Your task to perform on an android device: Go to calendar. Show me events next week Image 0: 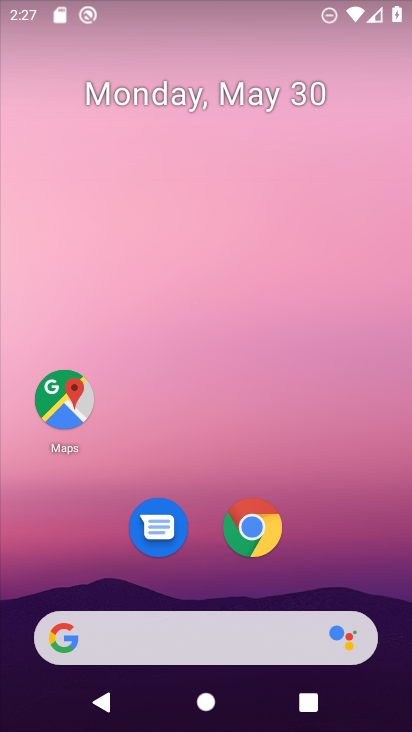
Step 0: drag from (236, 402) to (196, 139)
Your task to perform on an android device: Go to calendar. Show me events next week Image 1: 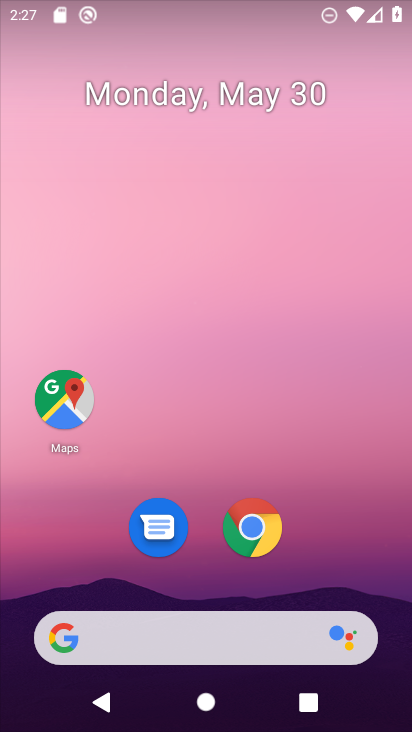
Step 1: drag from (266, 693) to (251, 333)
Your task to perform on an android device: Go to calendar. Show me events next week Image 2: 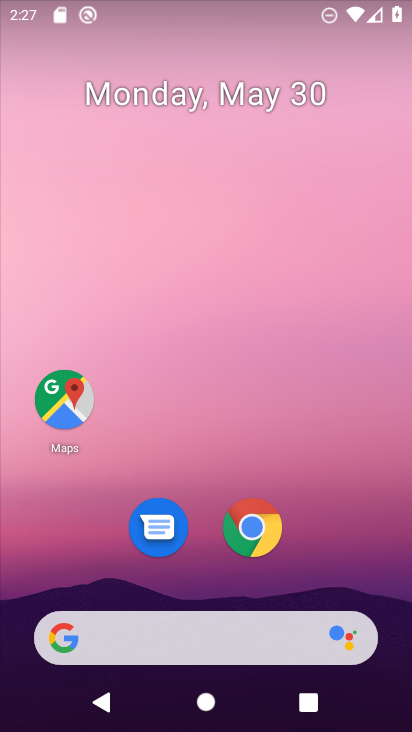
Step 2: drag from (250, 688) to (245, 56)
Your task to perform on an android device: Go to calendar. Show me events next week Image 3: 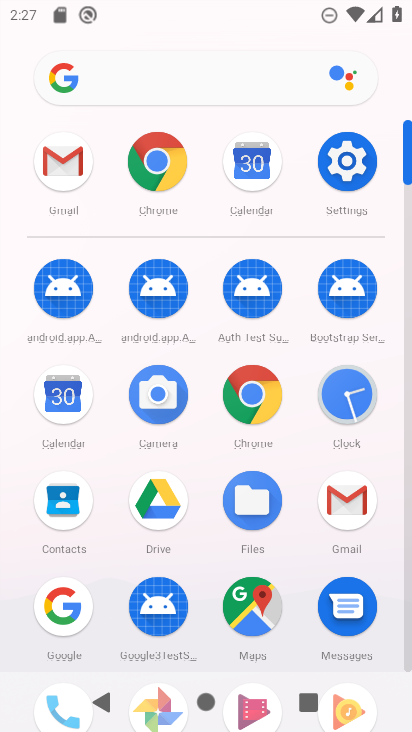
Step 3: click (56, 398)
Your task to perform on an android device: Go to calendar. Show me events next week Image 4: 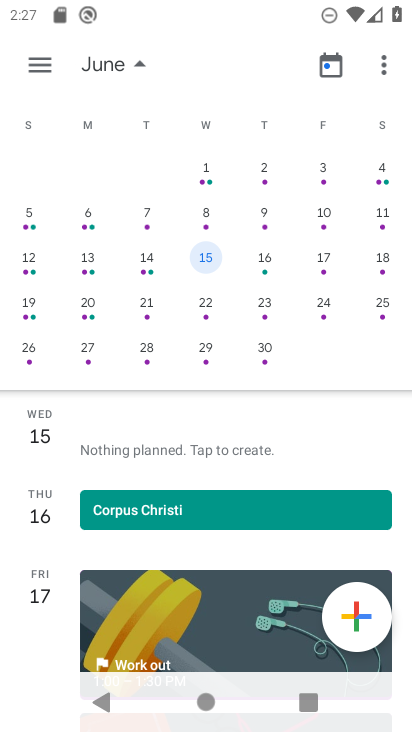
Step 4: click (200, 210)
Your task to perform on an android device: Go to calendar. Show me events next week Image 5: 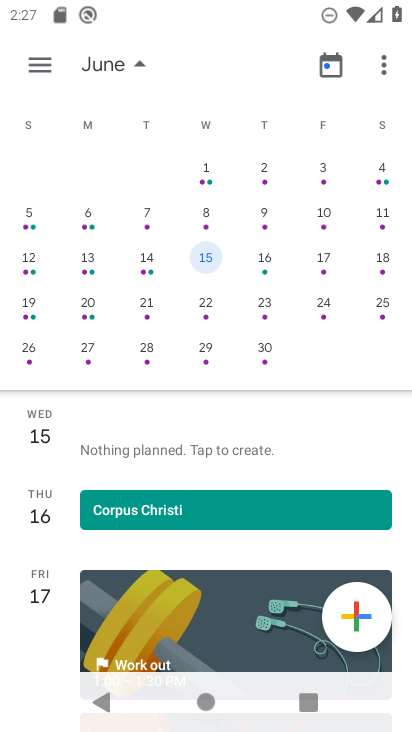
Step 5: click (202, 211)
Your task to perform on an android device: Go to calendar. Show me events next week Image 6: 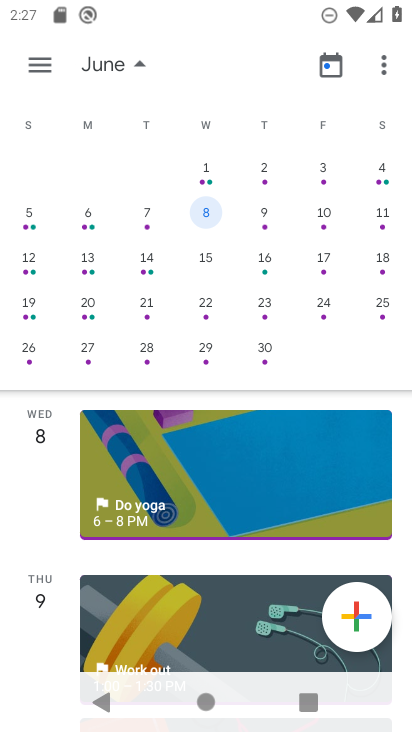
Step 6: click (200, 213)
Your task to perform on an android device: Go to calendar. Show me events next week Image 7: 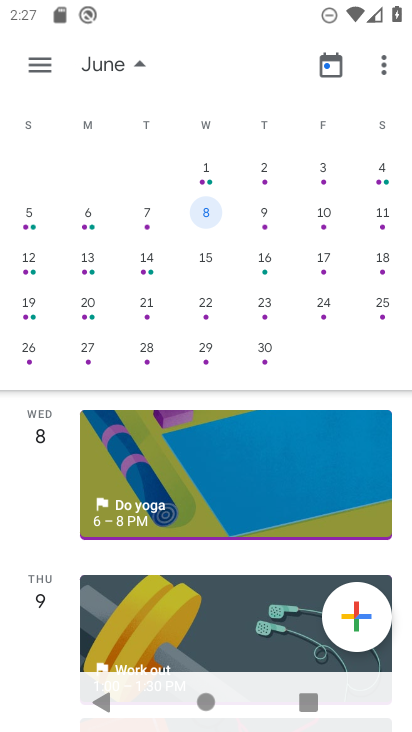
Step 7: click (184, 484)
Your task to perform on an android device: Go to calendar. Show me events next week Image 8: 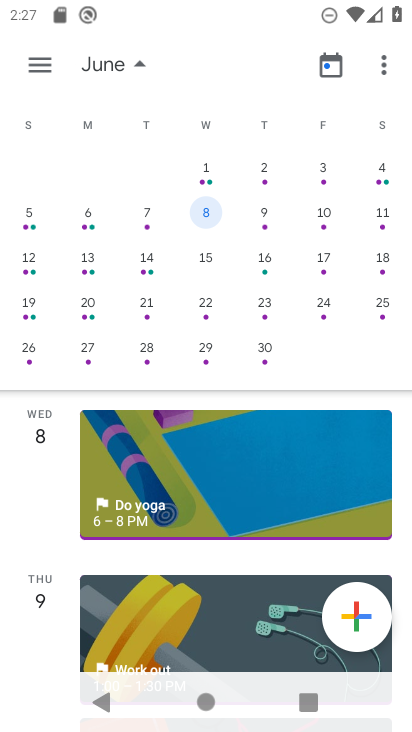
Step 8: click (184, 486)
Your task to perform on an android device: Go to calendar. Show me events next week Image 9: 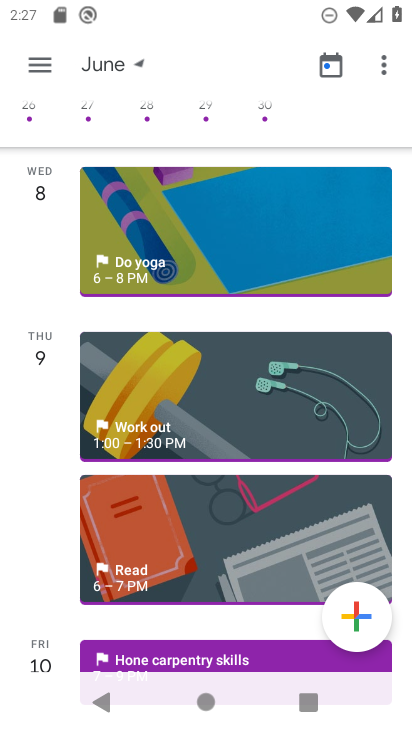
Step 9: click (185, 484)
Your task to perform on an android device: Go to calendar. Show me events next week Image 10: 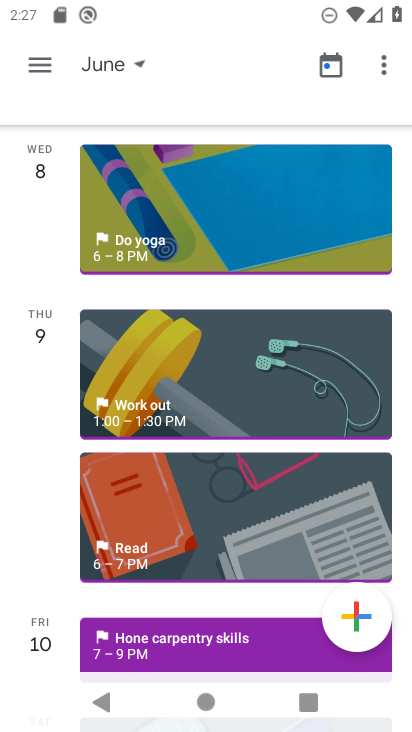
Step 10: click (186, 483)
Your task to perform on an android device: Go to calendar. Show me events next week Image 11: 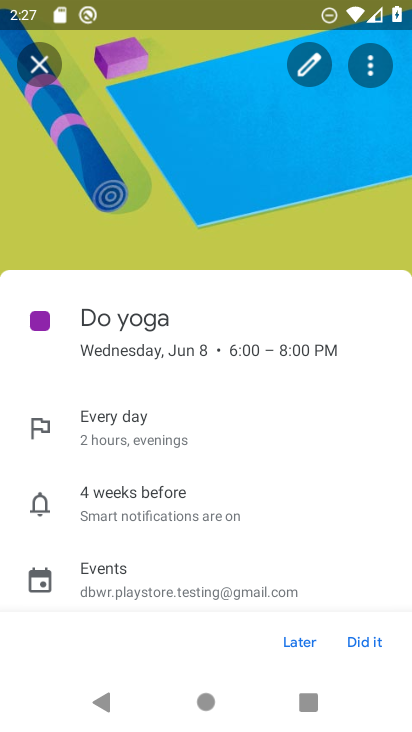
Step 11: task complete